Your task to perform on an android device: Open location settings Image 0: 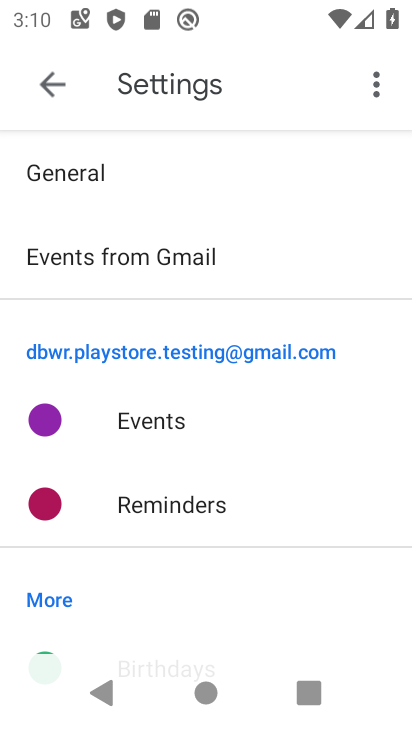
Step 0: press home button
Your task to perform on an android device: Open location settings Image 1: 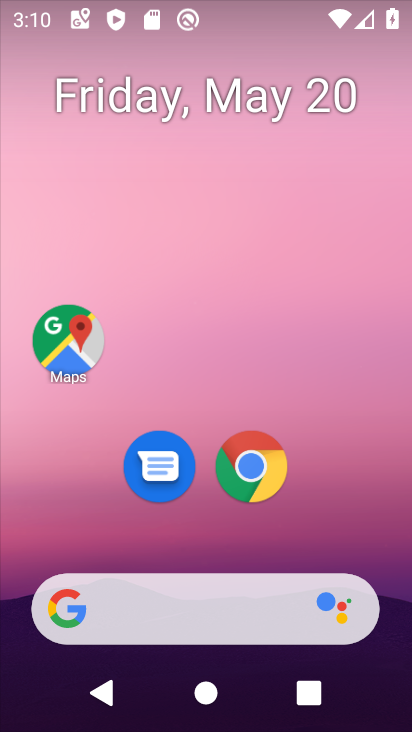
Step 1: drag from (121, 557) to (136, 189)
Your task to perform on an android device: Open location settings Image 2: 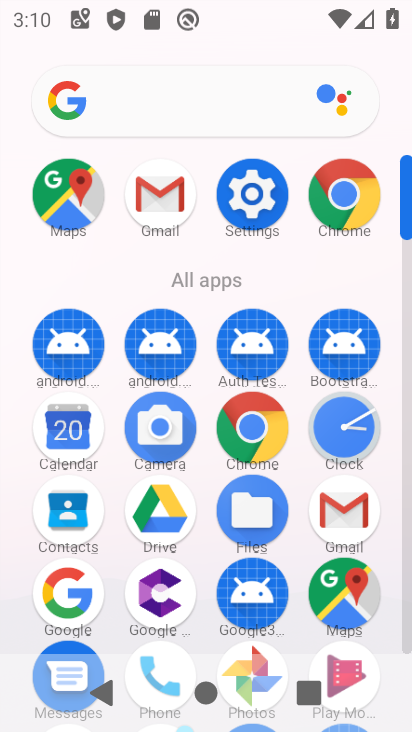
Step 2: click (250, 204)
Your task to perform on an android device: Open location settings Image 3: 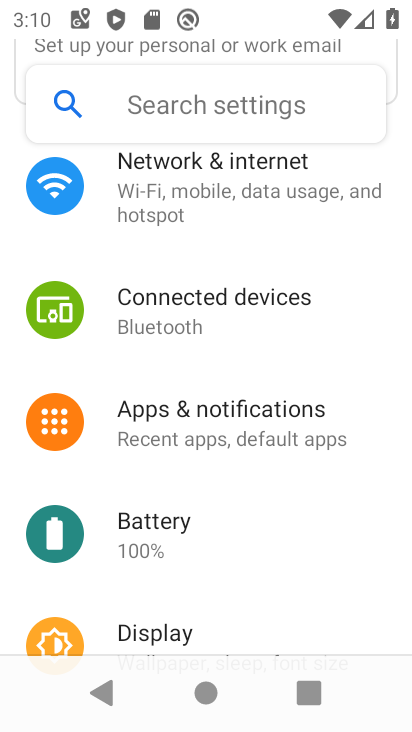
Step 3: drag from (159, 600) to (181, 278)
Your task to perform on an android device: Open location settings Image 4: 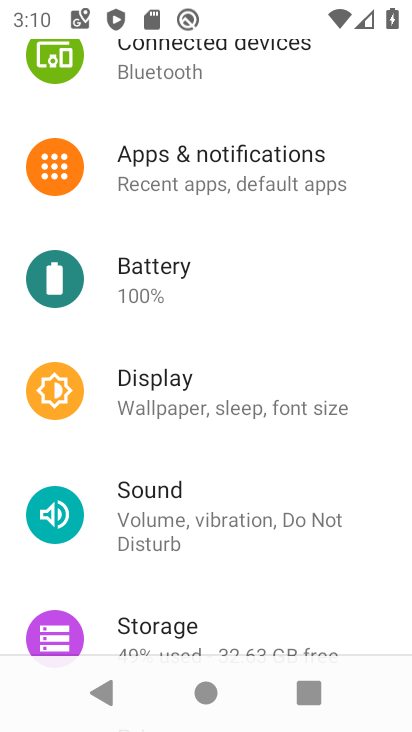
Step 4: drag from (192, 572) to (209, 284)
Your task to perform on an android device: Open location settings Image 5: 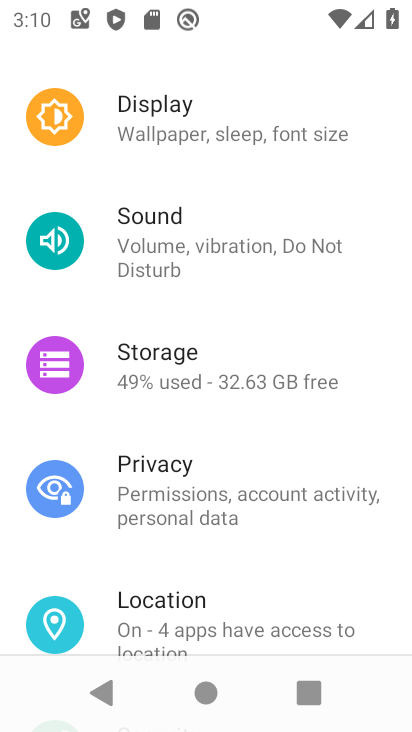
Step 5: click (164, 604)
Your task to perform on an android device: Open location settings Image 6: 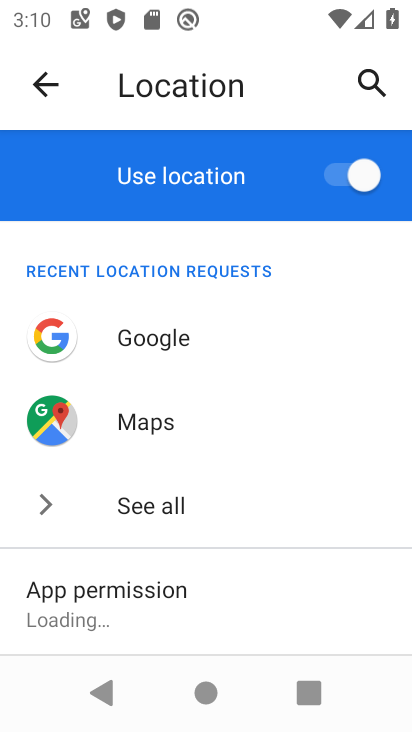
Step 6: drag from (121, 619) to (156, 325)
Your task to perform on an android device: Open location settings Image 7: 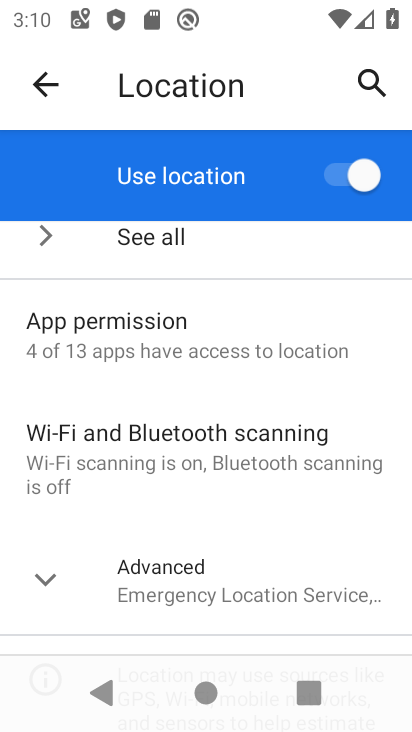
Step 7: click (137, 587)
Your task to perform on an android device: Open location settings Image 8: 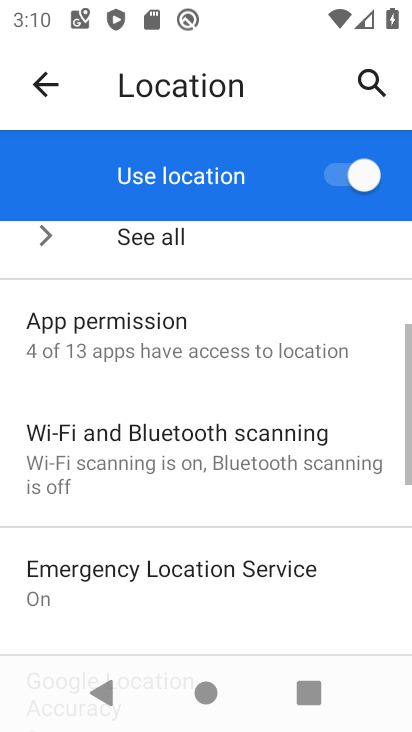
Step 8: task complete